Your task to perform on an android device: find snoozed emails in the gmail app Image 0: 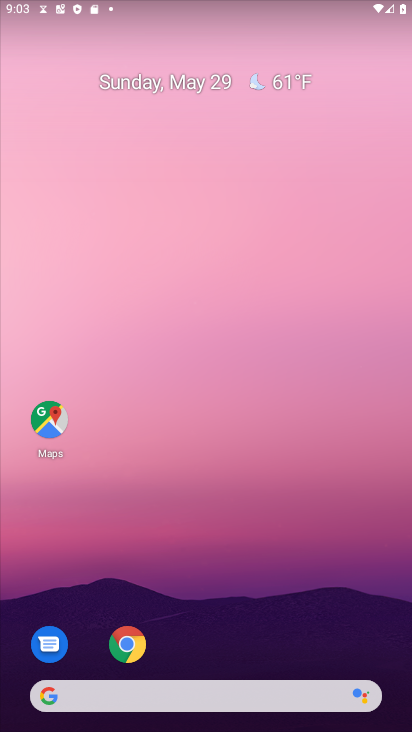
Step 0: drag from (211, 700) to (237, 156)
Your task to perform on an android device: find snoozed emails in the gmail app Image 1: 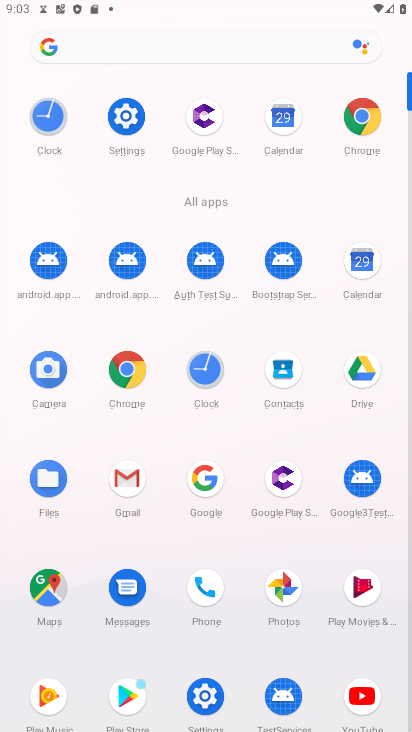
Step 1: click (120, 481)
Your task to perform on an android device: find snoozed emails in the gmail app Image 2: 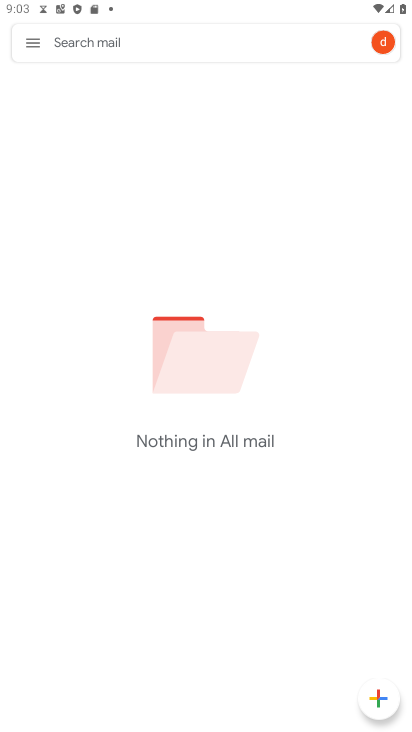
Step 2: click (31, 40)
Your task to perform on an android device: find snoozed emails in the gmail app Image 3: 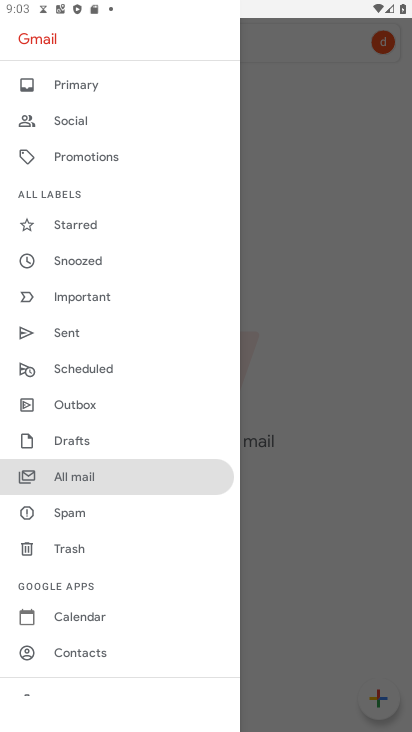
Step 3: click (88, 260)
Your task to perform on an android device: find snoozed emails in the gmail app Image 4: 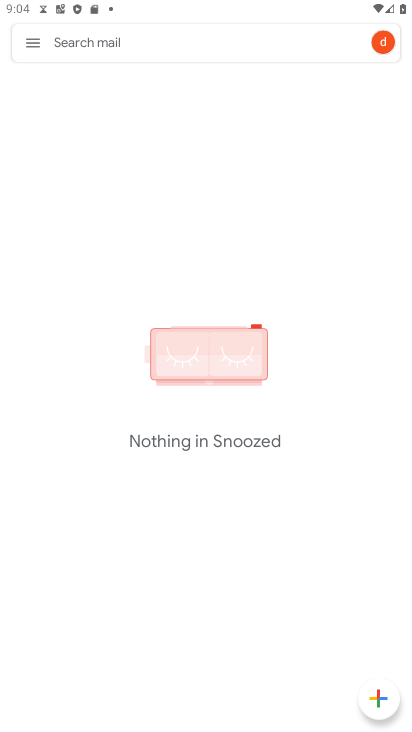
Step 4: task complete